Your task to perform on an android device: see creations saved in the google photos Image 0: 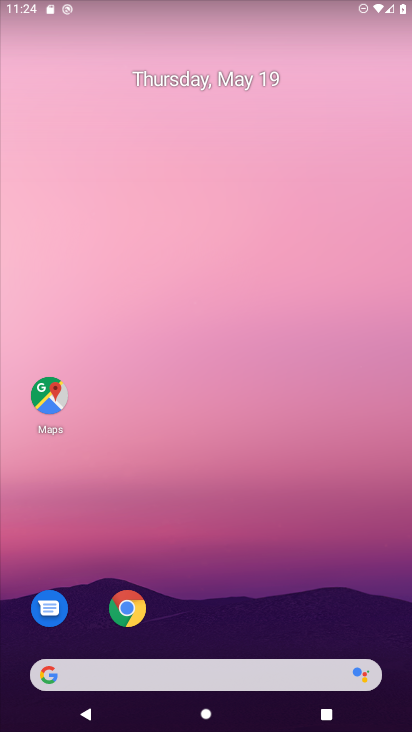
Step 0: press home button
Your task to perform on an android device: see creations saved in the google photos Image 1: 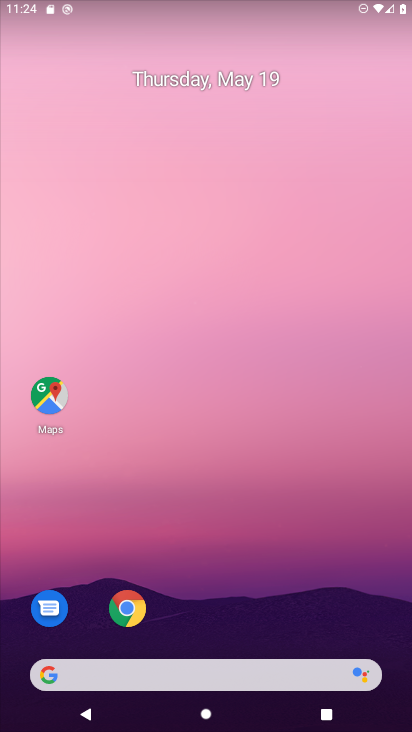
Step 1: drag from (209, 619) to (263, 189)
Your task to perform on an android device: see creations saved in the google photos Image 2: 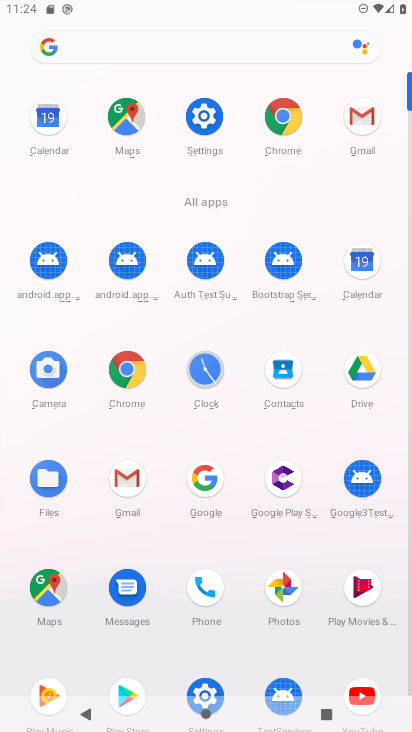
Step 2: click (298, 592)
Your task to perform on an android device: see creations saved in the google photos Image 3: 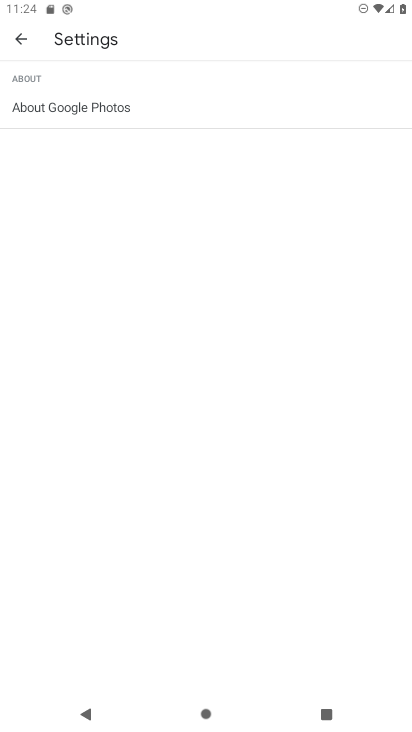
Step 3: click (20, 31)
Your task to perform on an android device: see creations saved in the google photos Image 4: 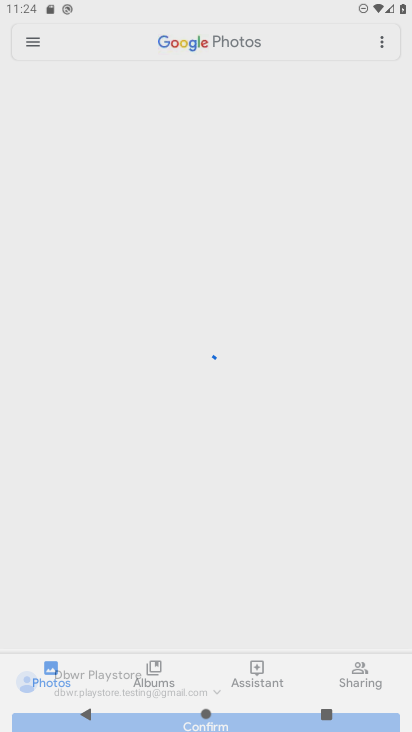
Step 4: click (177, 38)
Your task to perform on an android device: see creations saved in the google photos Image 5: 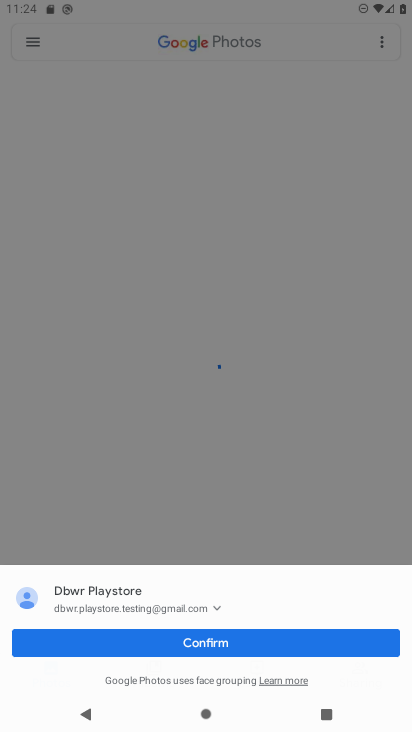
Step 5: click (177, 38)
Your task to perform on an android device: see creations saved in the google photos Image 6: 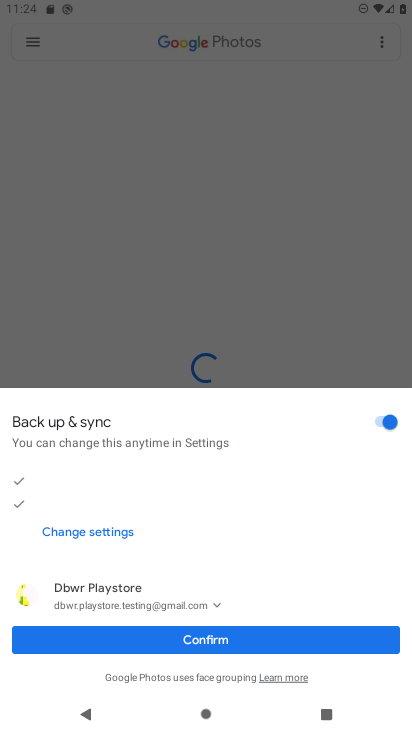
Step 6: click (177, 38)
Your task to perform on an android device: see creations saved in the google photos Image 7: 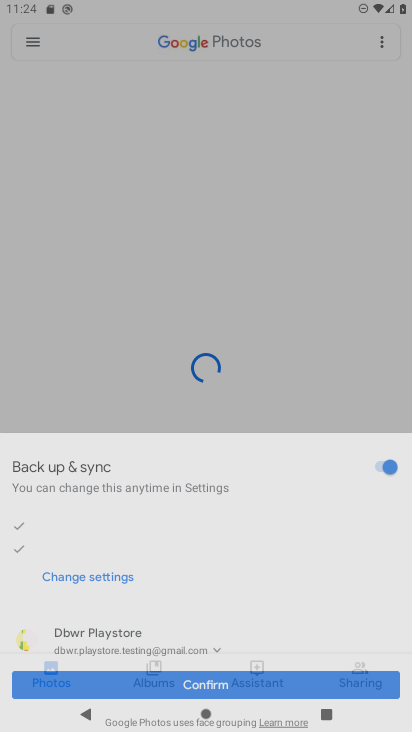
Step 7: click (177, 38)
Your task to perform on an android device: see creations saved in the google photos Image 8: 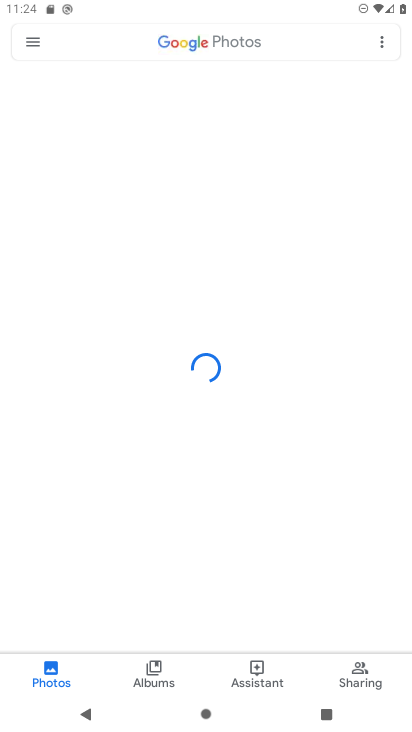
Step 8: click (177, 38)
Your task to perform on an android device: see creations saved in the google photos Image 9: 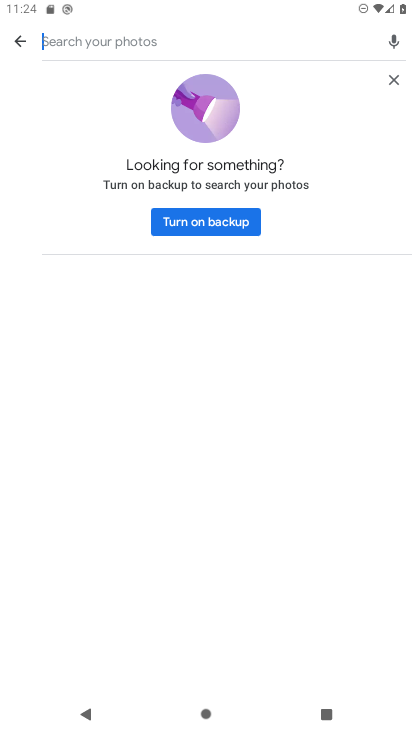
Step 9: click (302, 403)
Your task to perform on an android device: see creations saved in the google photos Image 10: 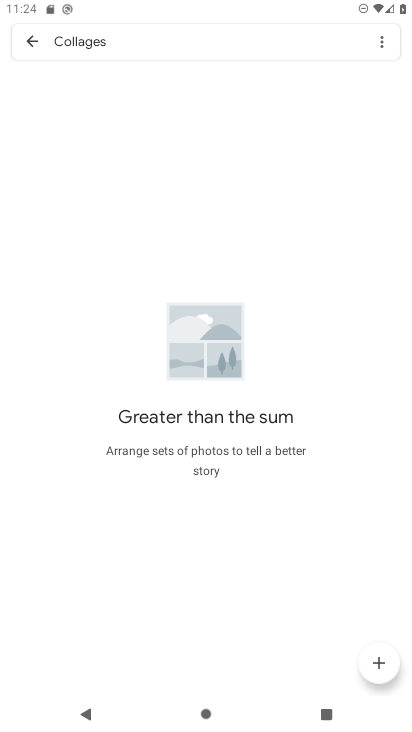
Step 10: click (29, 50)
Your task to perform on an android device: see creations saved in the google photos Image 11: 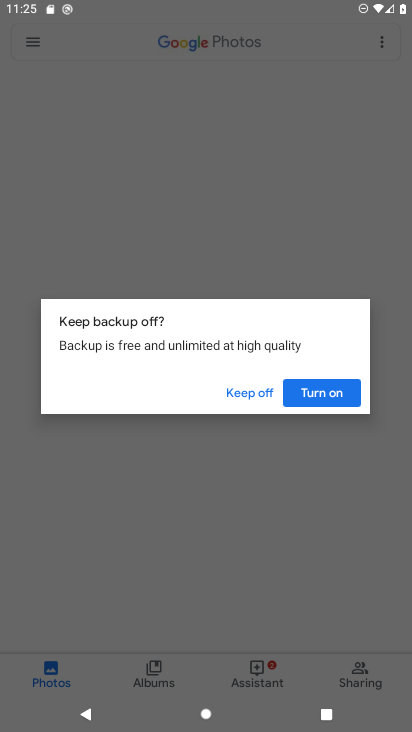
Step 11: click (287, 390)
Your task to perform on an android device: see creations saved in the google photos Image 12: 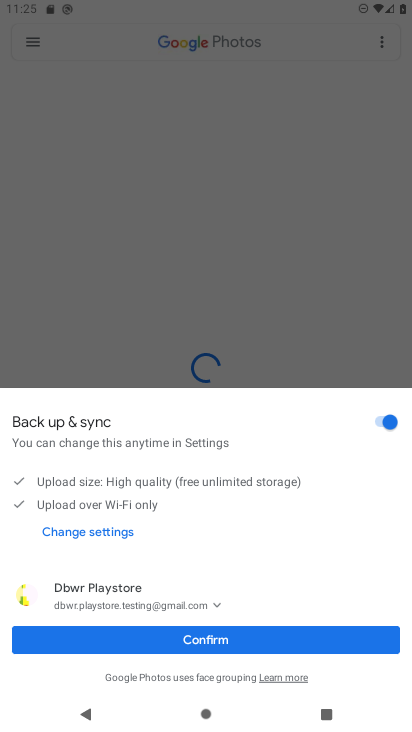
Step 12: click (240, 642)
Your task to perform on an android device: see creations saved in the google photos Image 13: 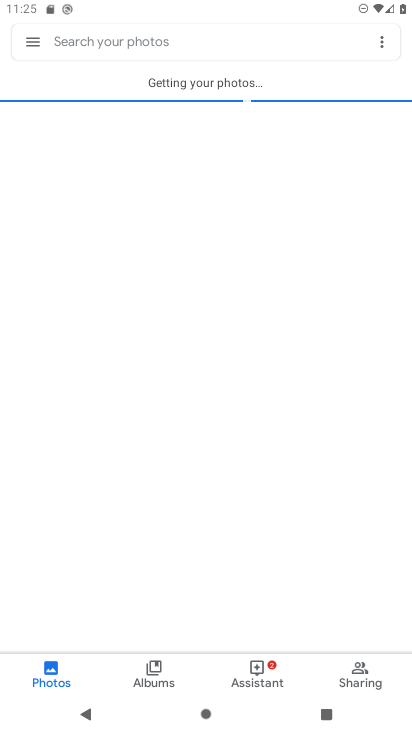
Step 13: click (166, 38)
Your task to perform on an android device: see creations saved in the google photos Image 14: 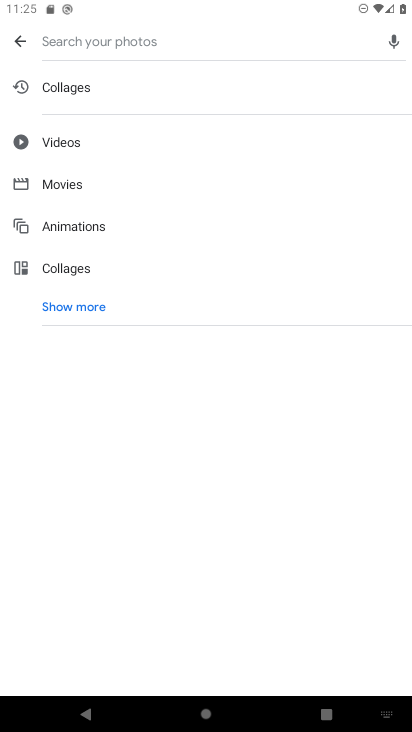
Step 14: click (74, 311)
Your task to perform on an android device: see creations saved in the google photos Image 15: 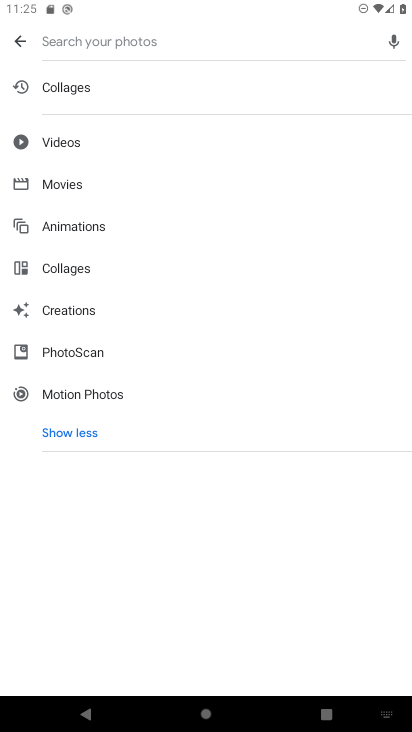
Step 15: click (74, 317)
Your task to perform on an android device: see creations saved in the google photos Image 16: 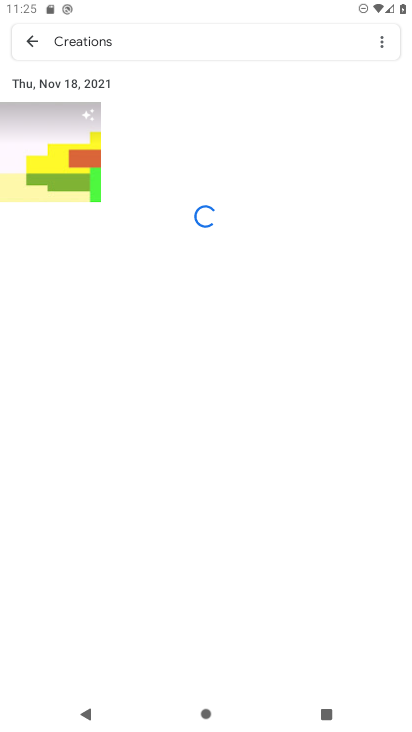
Step 16: task complete